Your task to perform on an android device: turn off improve location accuracy Image 0: 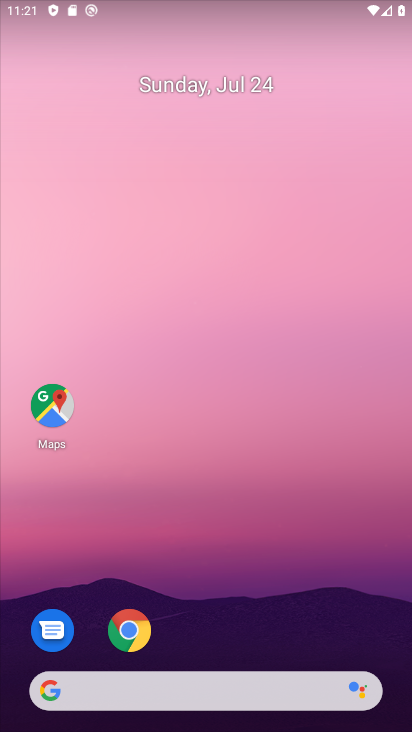
Step 0: drag from (199, 442) to (264, 83)
Your task to perform on an android device: turn off improve location accuracy Image 1: 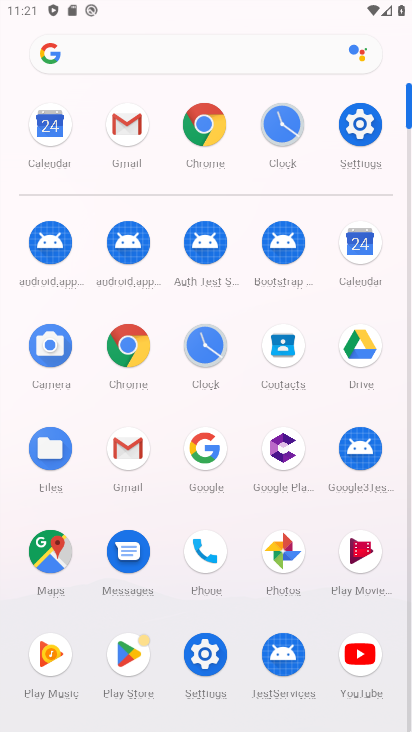
Step 1: click (364, 121)
Your task to perform on an android device: turn off improve location accuracy Image 2: 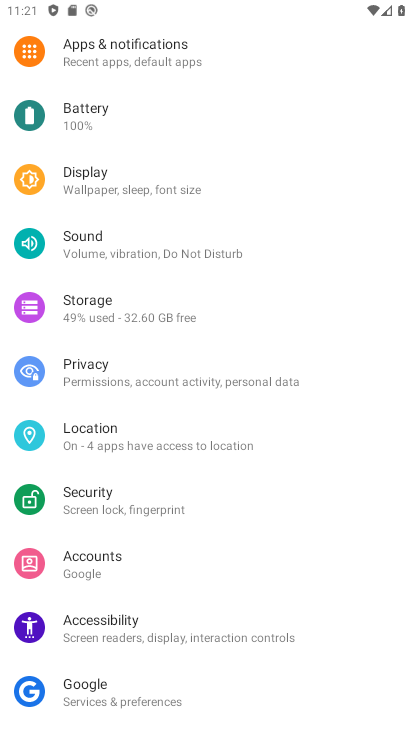
Step 2: click (63, 433)
Your task to perform on an android device: turn off improve location accuracy Image 3: 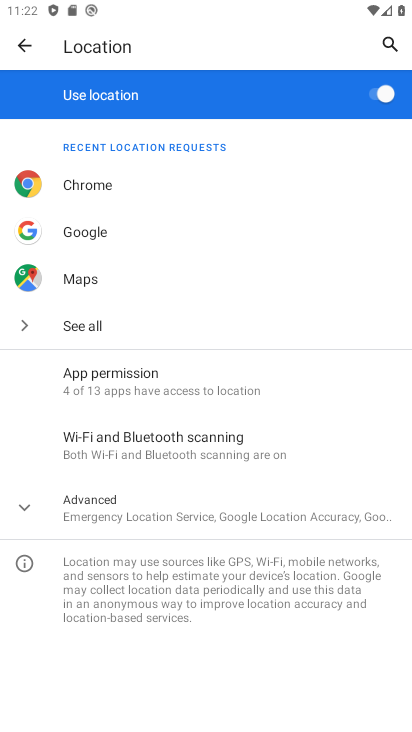
Step 3: click (137, 511)
Your task to perform on an android device: turn off improve location accuracy Image 4: 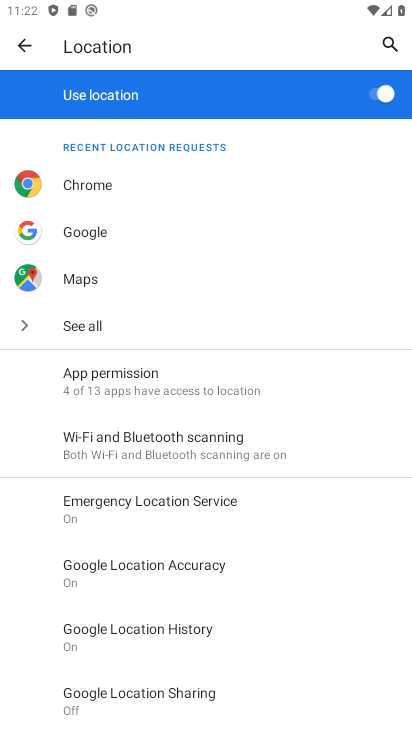
Step 4: click (139, 570)
Your task to perform on an android device: turn off improve location accuracy Image 5: 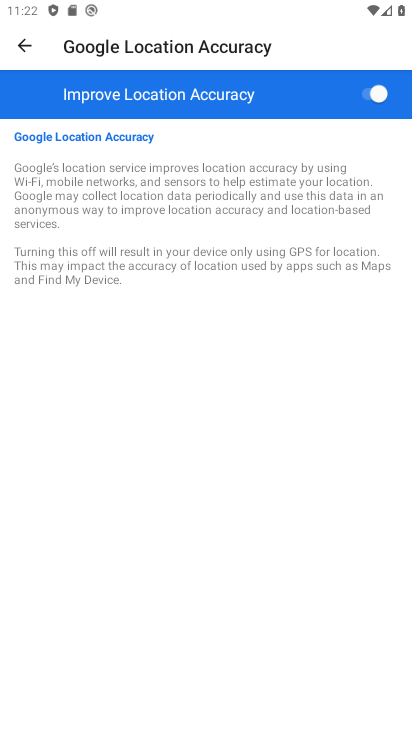
Step 5: click (368, 99)
Your task to perform on an android device: turn off improve location accuracy Image 6: 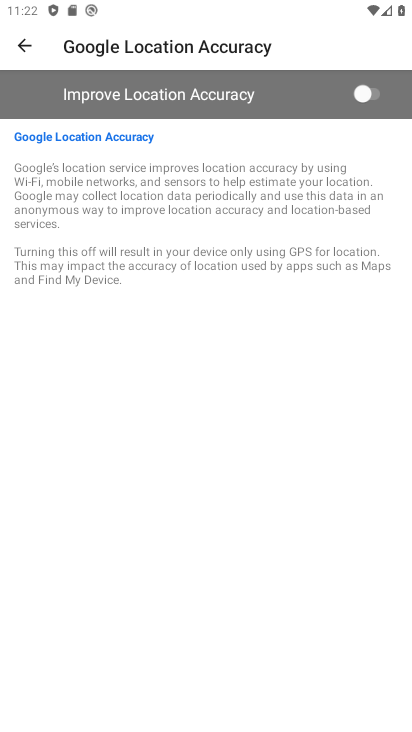
Step 6: task complete